Your task to perform on an android device: change text size in settings app Image 0: 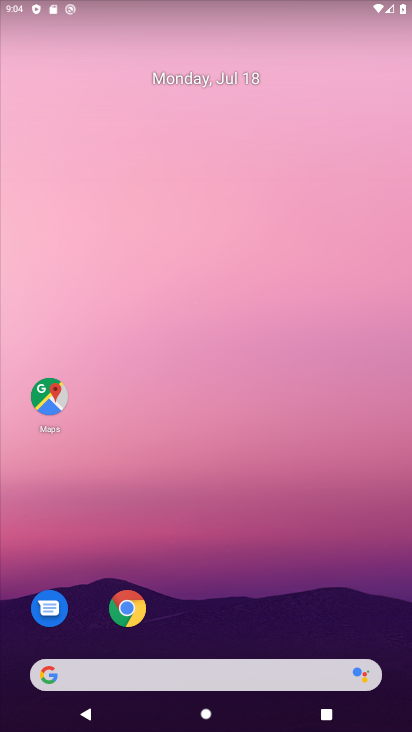
Step 0: drag from (280, 628) to (251, 37)
Your task to perform on an android device: change text size in settings app Image 1: 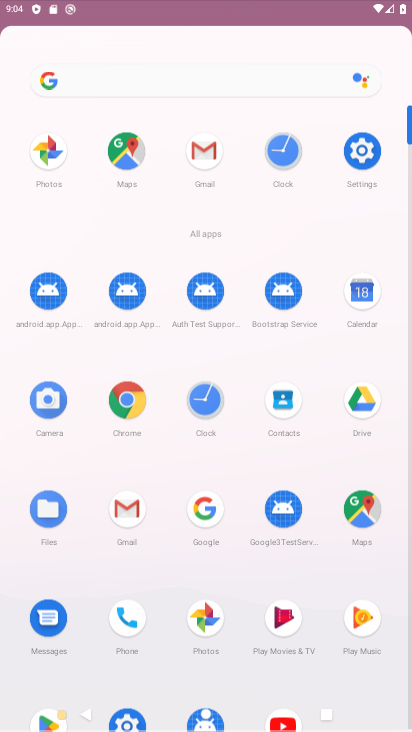
Step 1: drag from (286, 328) to (319, 18)
Your task to perform on an android device: change text size in settings app Image 2: 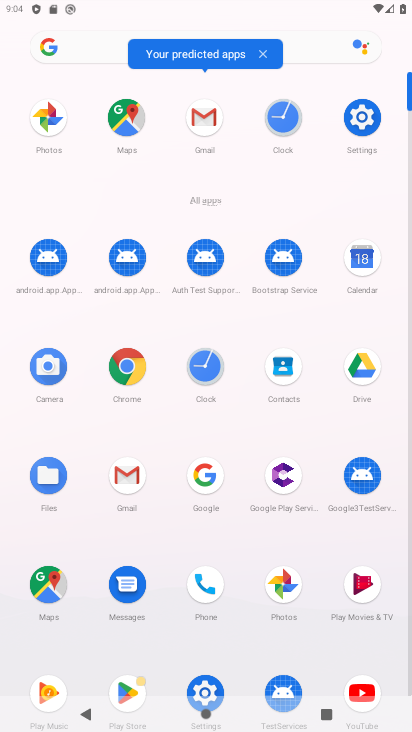
Step 2: click (368, 120)
Your task to perform on an android device: change text size in settings app Image 3: 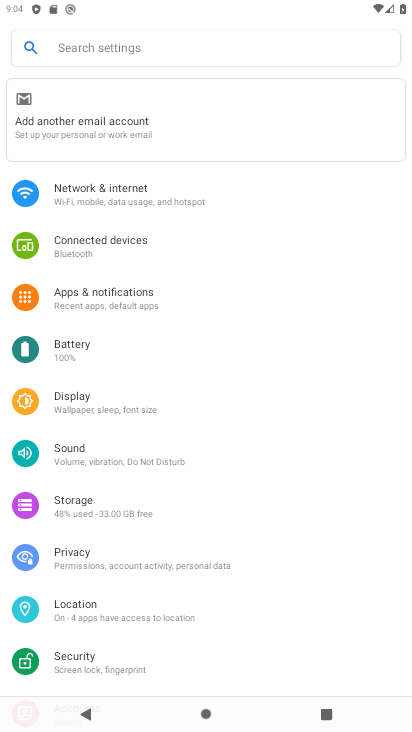
Step 3: click (74, 393)
Your task to perform on an android device: change text size in settings app Image 4: 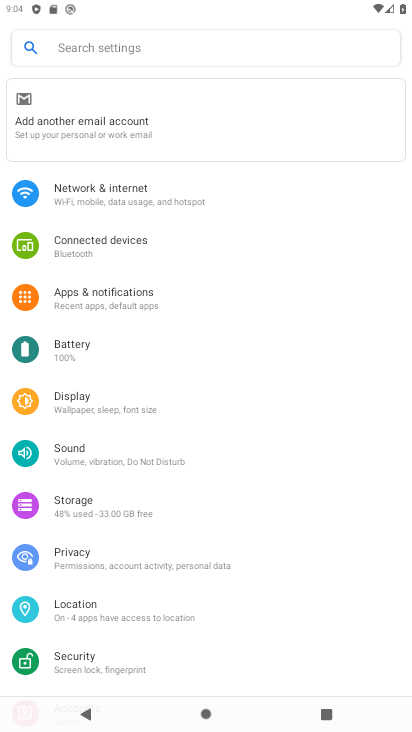
Step 4: click (75, 396)
Your task to perform on an android device: change text size in settings app Image 5: 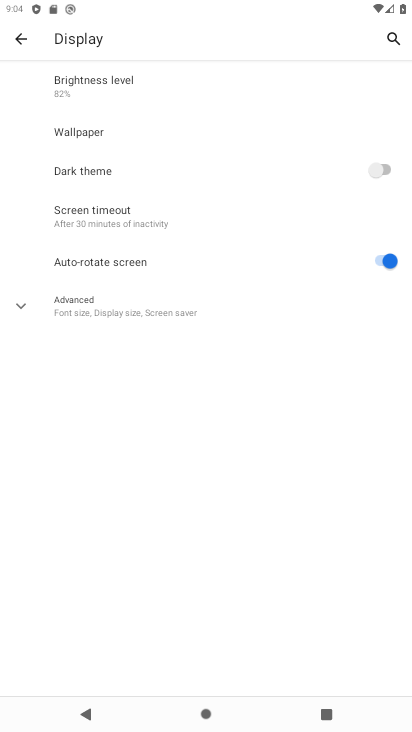
Step 5: click (111, 227)
Your task to perform on an android device: change text size in settings app Image 6: 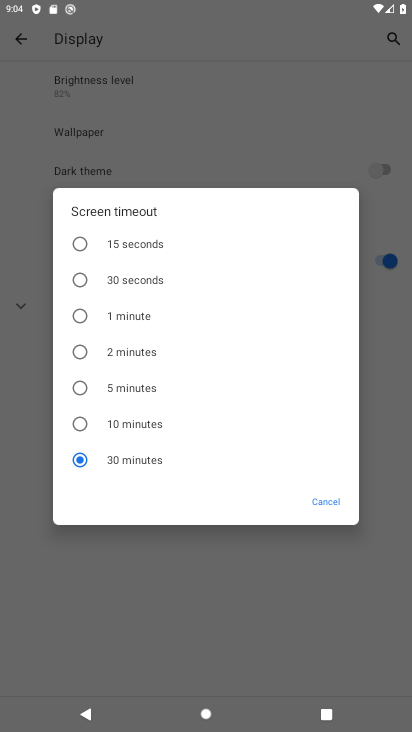
Step 6: click (318, 495)
Your task to perform on an android device: change text size in settings app Image 7: 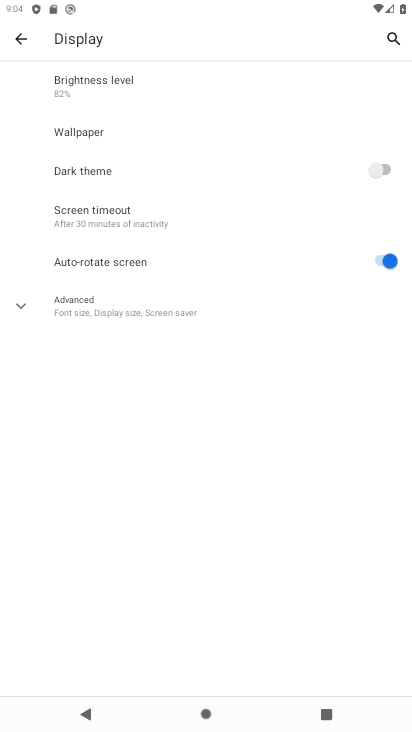
Step 7: click (107, 312)
Your task to perform on an android device: change text size in settings app Image 8: 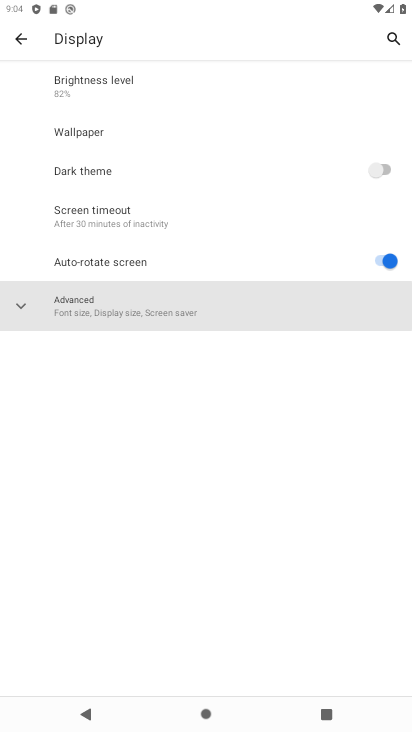
Step 8: click (106, 311)
Your task to perform on an android device: change text size in settings app Image 9: 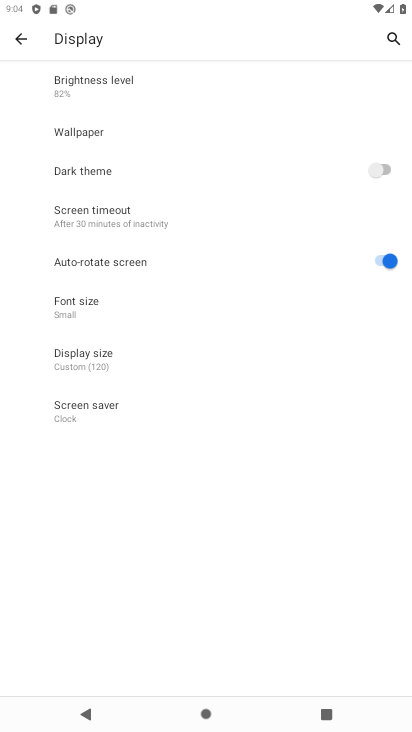
Step 9: click (69, 305)
Your task to perform on an android device: change text size in settings app Image 10: 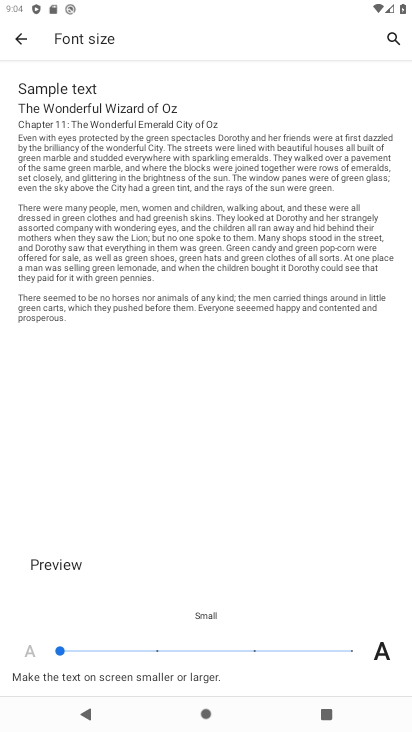
Step 10: click (350, 646)
Your task to perform on an android device: change text size in settings app Image 11: 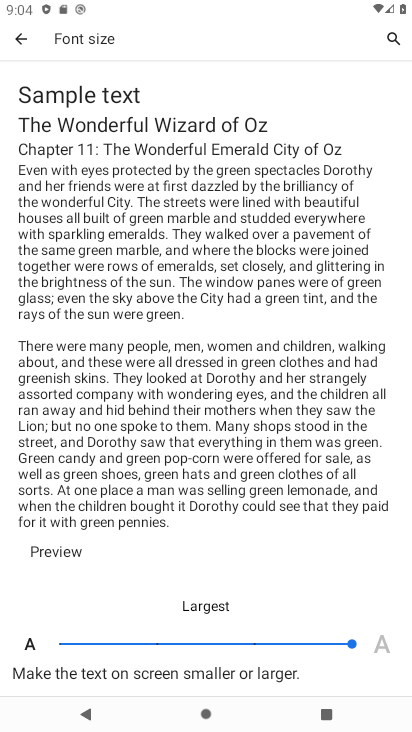
Step 11: task complete